Your task to perform on an android device: Go to Wikipedia Image 0: 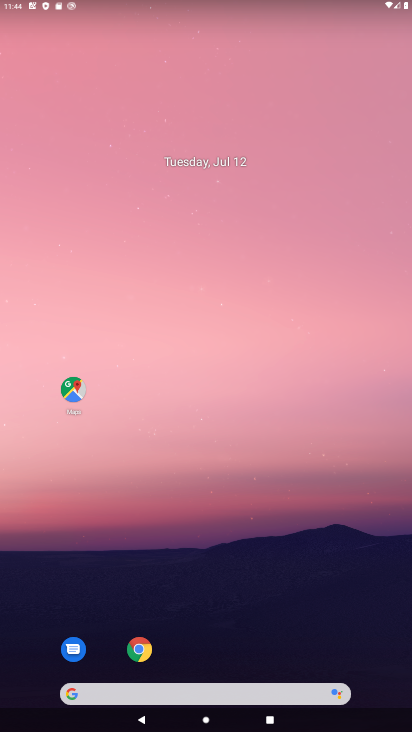
Step 0: click (141, 658)
Your task to perform on an android device: Go to Wikipedia Image 1: 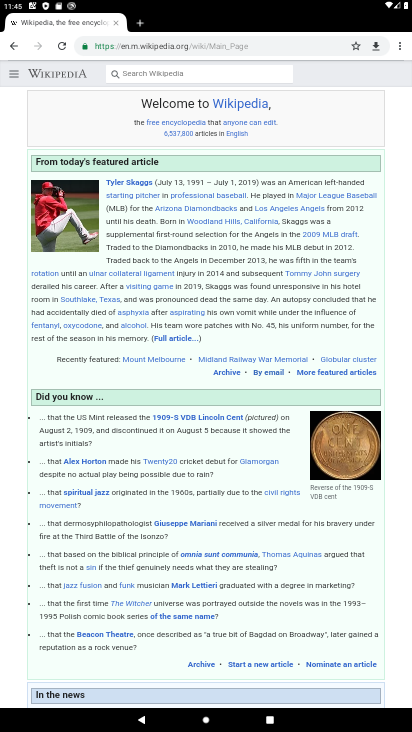
Step 1: task complete